Your task to perform on an android device: Open internet settings Image 0: 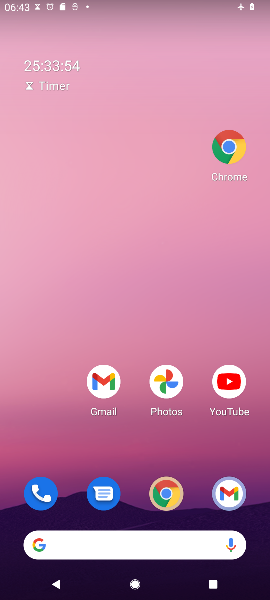
Step 0: press home button
Your task to perform on an android device: Open internet settings Image 1: 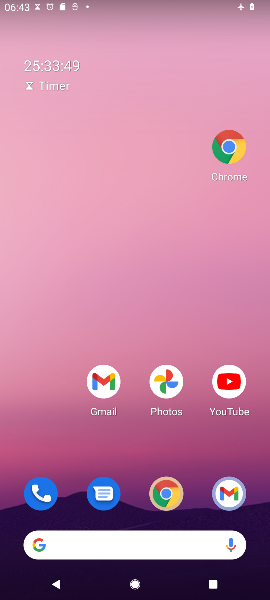
Step 1: drag from (141, 521) to (137, 26)
Your task to perform on an android device: Open internet settings Image 2: 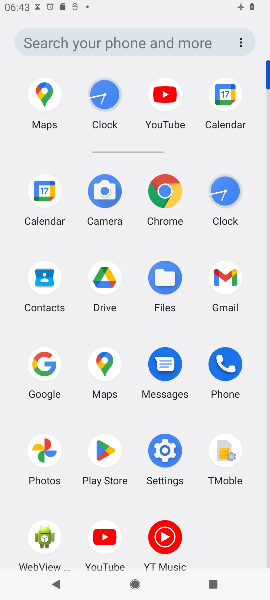
Step 2: click (168, 450)
Your task to perform on an android device: Open internet settings Image 3: 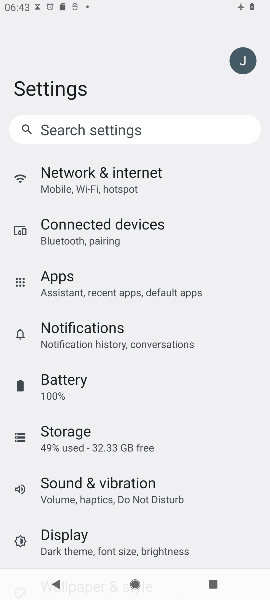
Step 3: click (90, 182)
Your task to perform on an android device: Open internet settings Image 4: 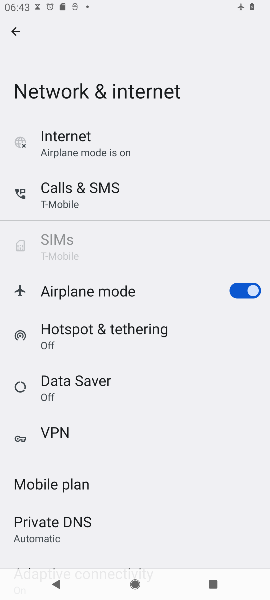
Step 4: click (71, 144)
Your task to perform on an android device: Open internet settings Image 5: 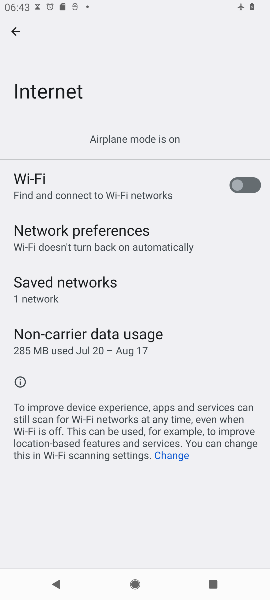
Step 5: task complete